Your task to perform on an android device: Open Google Image 0: 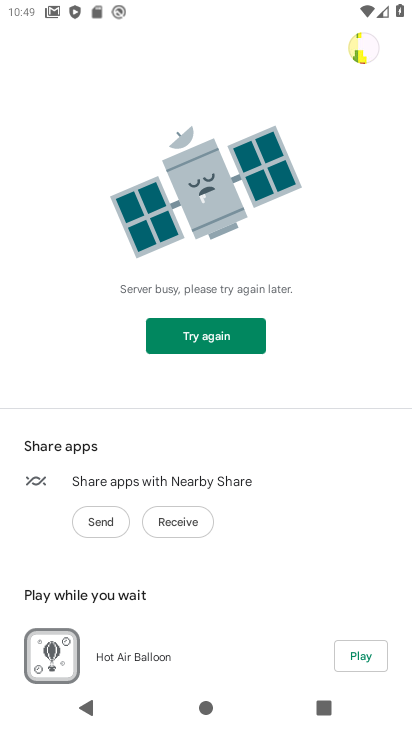
Step 0: press home button
Your task to perform on an android device: Open Google Image 1: 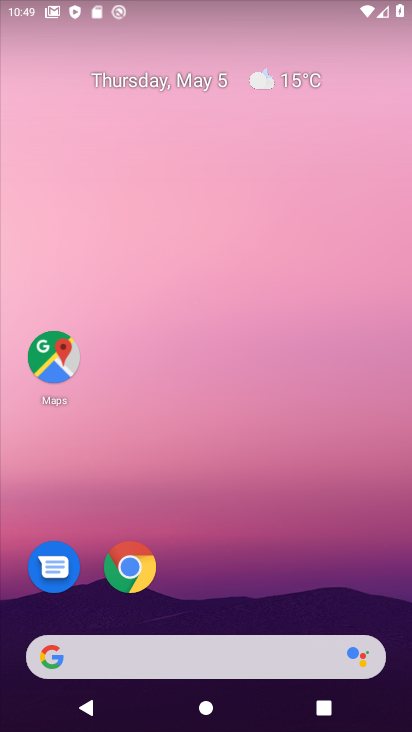
Step 1: drag from (219, 564) to (123, 103)
Your task to perform on an android device: Open Google Image 2: 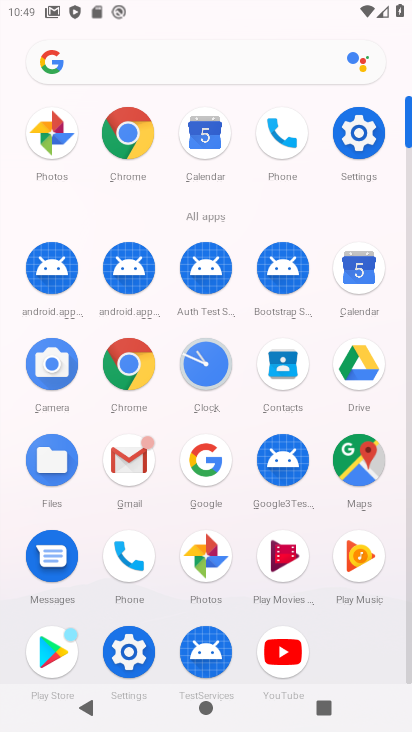
Step 2: click (206, 469)
Your task to perform on an android device: Open Google Image 3: 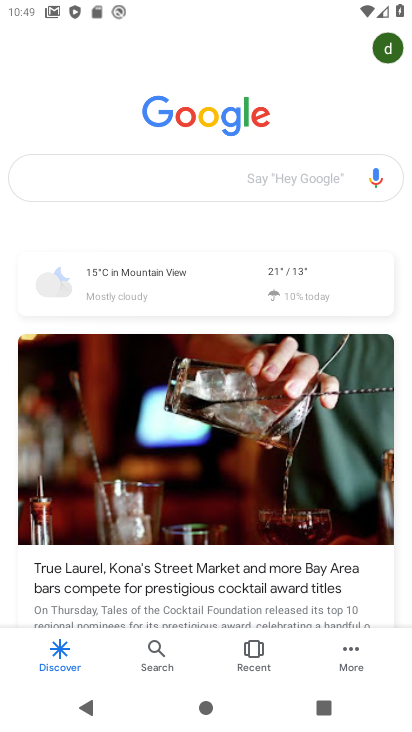
Step 3: task complete